Your task to perform on an android device: open sync settings in chrome Image 0: 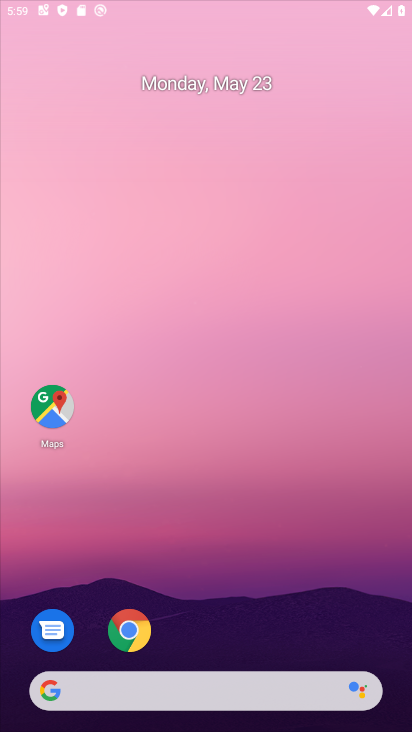
Step 0: drag from (249, 144) to (247, 11)
Your task to perform on an android device: open sync settings in chrome Image 1: 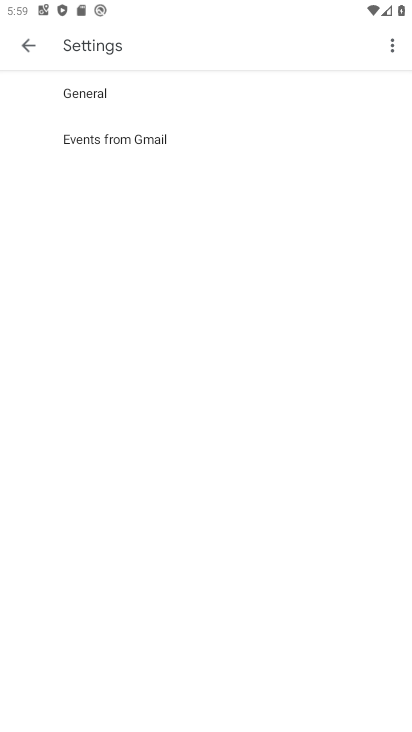
Step 1: press back button
Your task to perform on an android device: open sync settings in chrome Image 2: 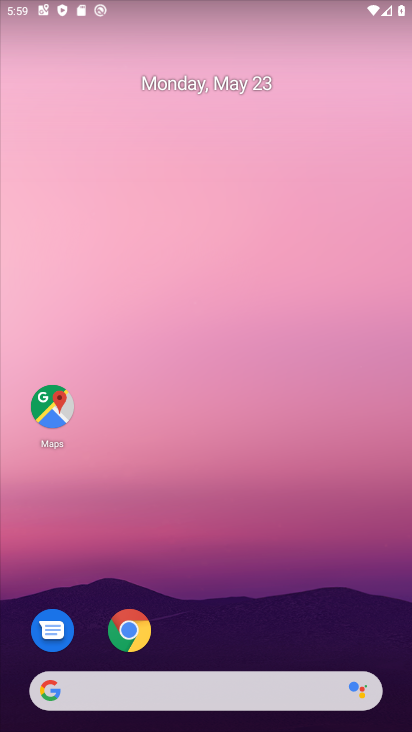
Step 2: drag from (335, 560) to (309, 4)
Your task to perform on an android device: open sync settings in chrome Image 3: 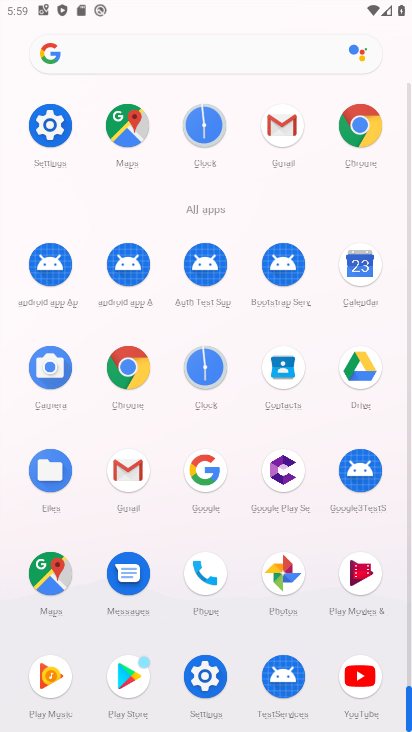
Step 3: drag from (9, 533) to (22, 187)
Your task to perform on an android device: open sync settings in chrome Image 4: 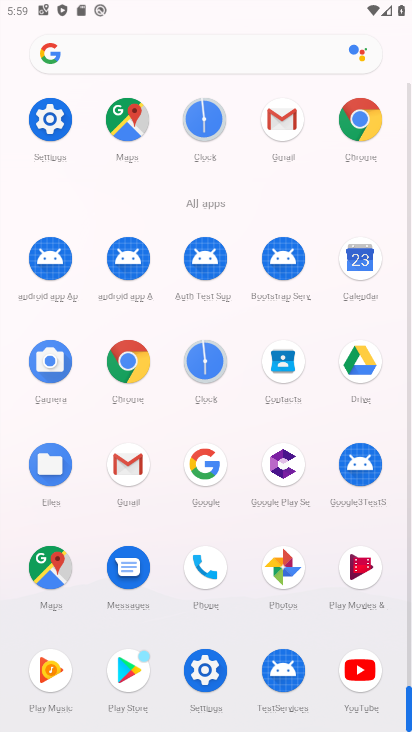
Step 4: click (357, 121)
Your task to perform on an android device: open sync settings in chrome Image 5: 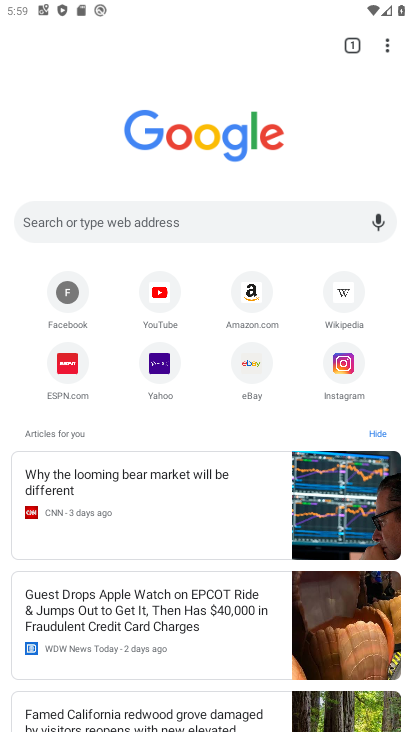
Step 5: drag from (383, 49) to (232, 428)
Your task to perform on an android device: open sync settings in chrome Image 6: 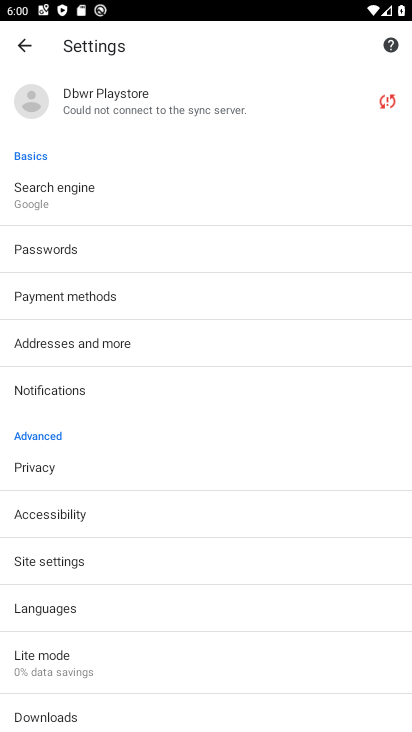
Step 6: click (153, 100)
Your task to perform on an android device: open sync settings in chrome Image 7: 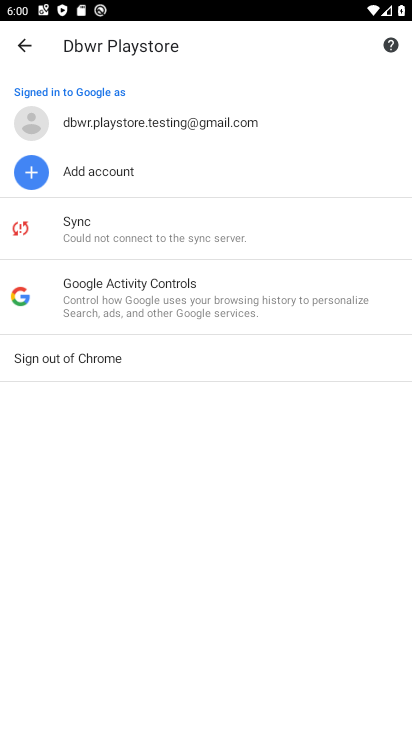
Step 7: click (129, 240)
Your task to perform on an android device: open sync settings in chrome Image 8: 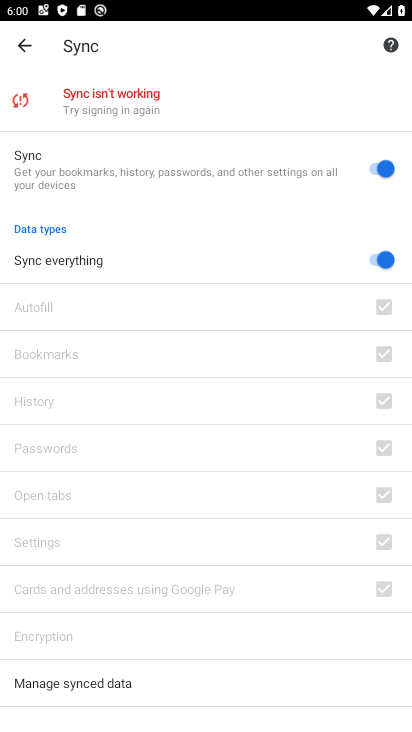
Step 8: task complete